Your task to perform on an android device: turn on translation in the chrome app Image 0: 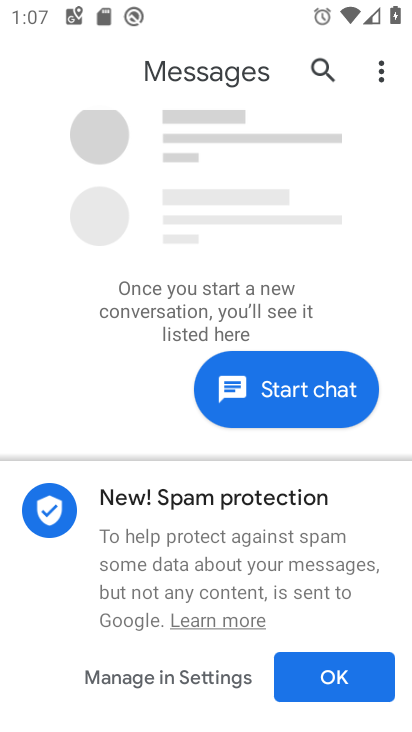
Step 0: press back button
Your task to perform on an android device: turn on translation in the chrome app Image 1: 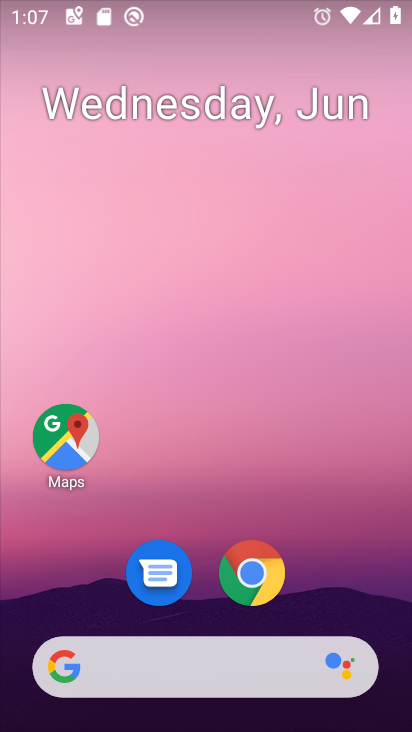
Step 1: click (261, 565)
Your task to perform on an android device: turn on translation in the chrome app Image 2: 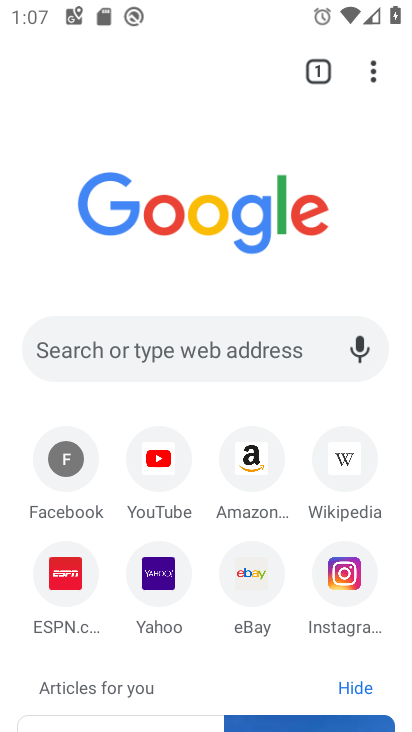
Step 2: drag from (369, 68) to (112, 608)
Your task to perform on an android device: turn on translation in the chrome app Image 3: 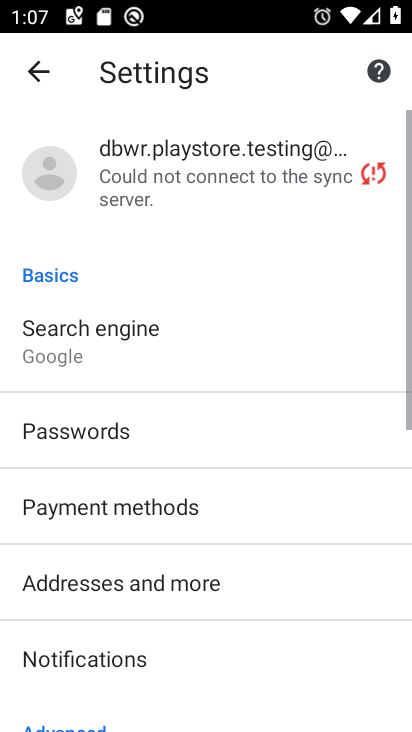
Step 3: drag from (136, 625) to (173, 149)
Your task to perform on an android device: turn on translation in the chrome app Image 4: 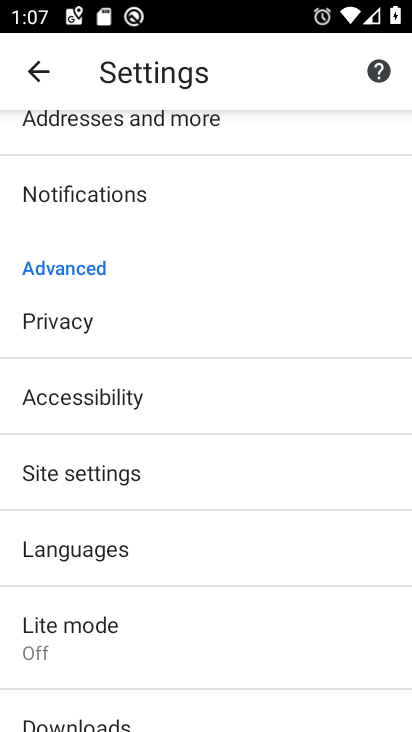
Step 4: click (88, 562)
Your task to perform on an android device: turn on translation in the chrome app Image 5: 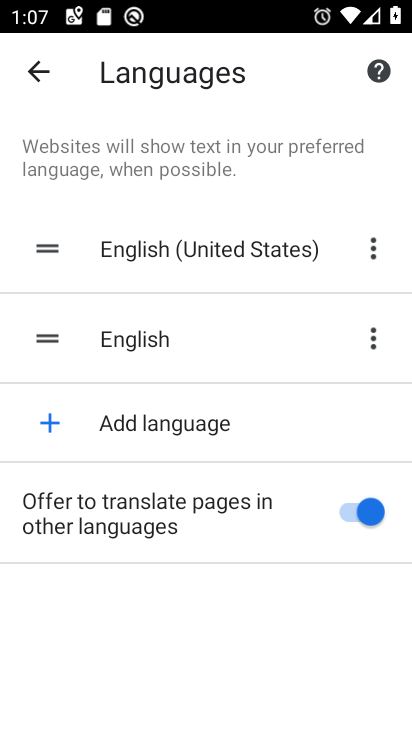
Step 5: task complete